Your task to perform on an android device: What is the news today? Image 0: 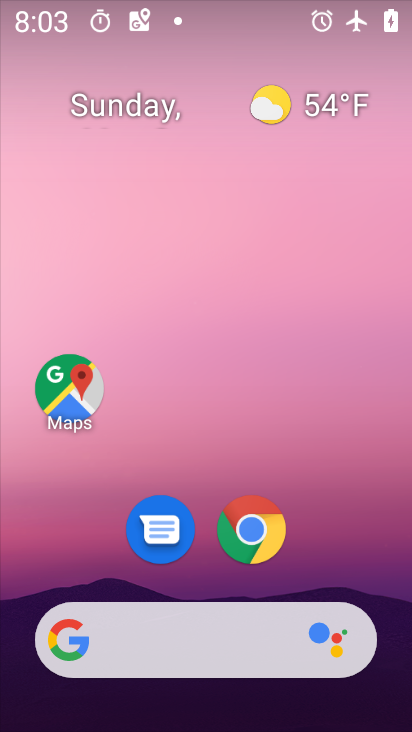
Step 0: click (222, 623)
Your task to perform on an android device: What is the news today? Image 1: 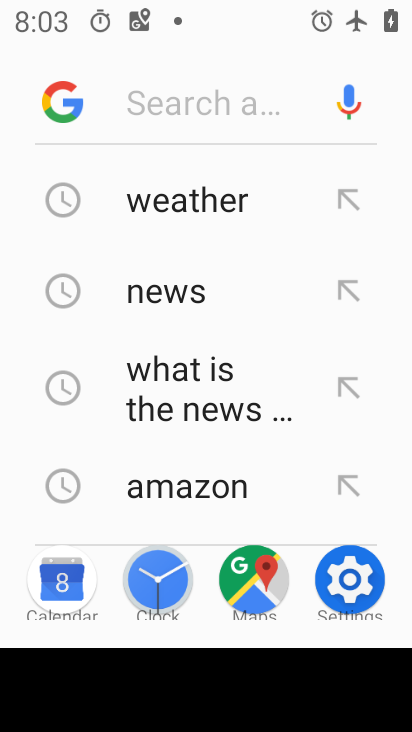
Step 1: click (224, 391)
Your task to perform on an android device: What is the news today? Image 2: 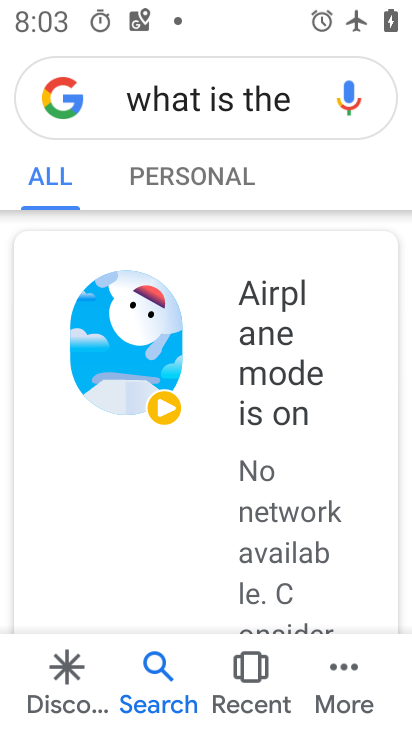
Step 2: task complete